Your task to perform on an android device: Open my contact list Image 0: 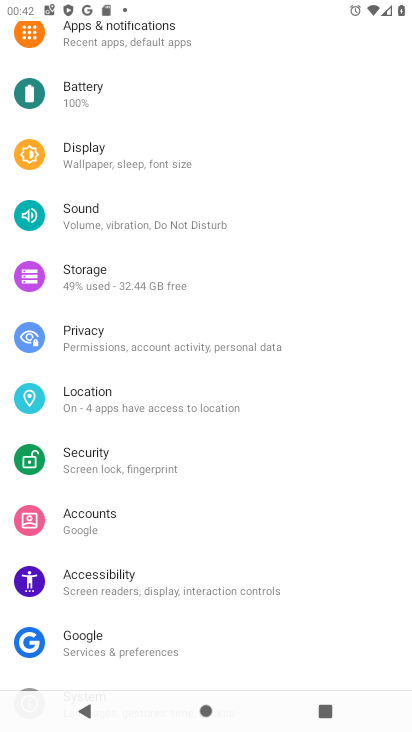
Step 0: press home button
Your task to perform on an android device: Open my contact list Image 1: 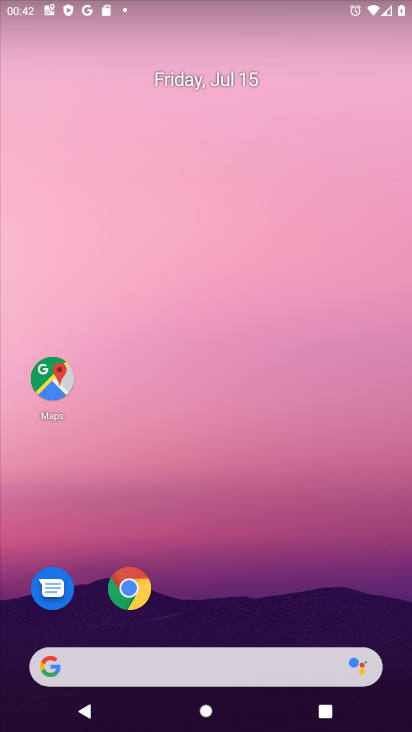
Step 1: drag from (250, 647) to (350, 7)
Your task to perform on an android device: Open my contact list Image 2: 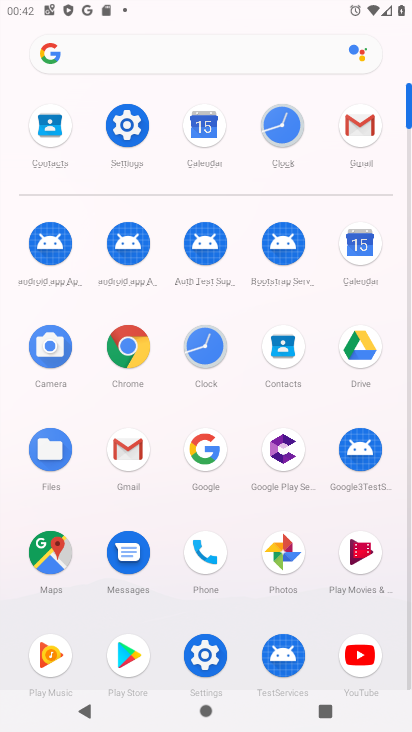
Step 2: click (59, 130)
Your task to perform on an android device: Open my contact list Image 3: 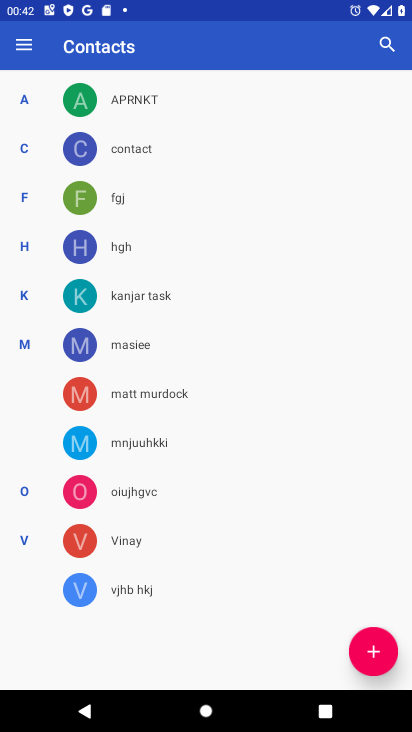
Step 3: task complete